Your task to perform on an android device: change text size in settings app Image 0: 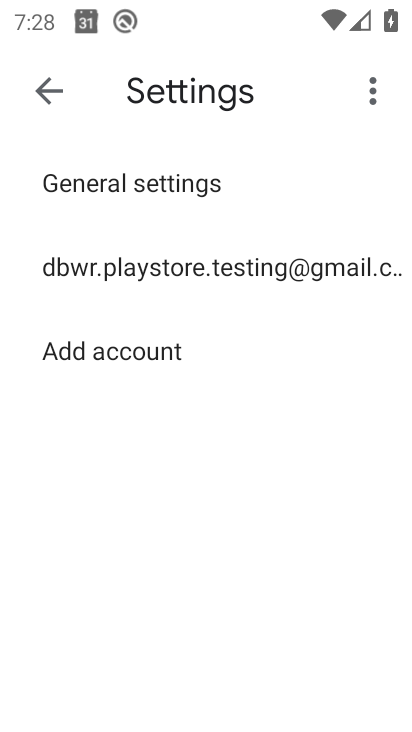
Step 0: press home button
Your task to perform on an android device: change text size in settings app Image 1: 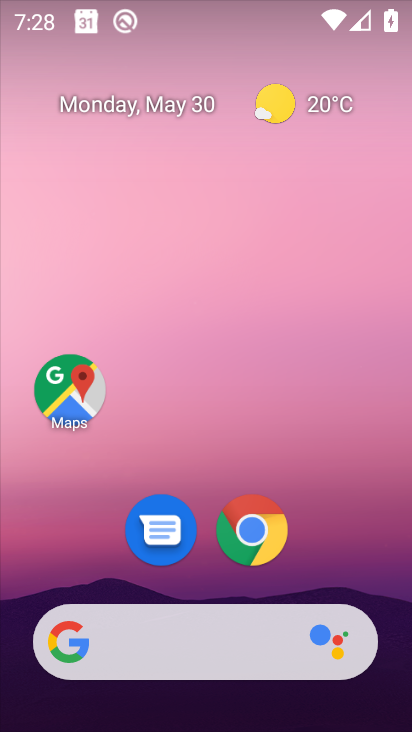
Step 1: drag from (2, 506) to (220, 196)
Your task to perform on an android device: change text size in settings app Image 2: 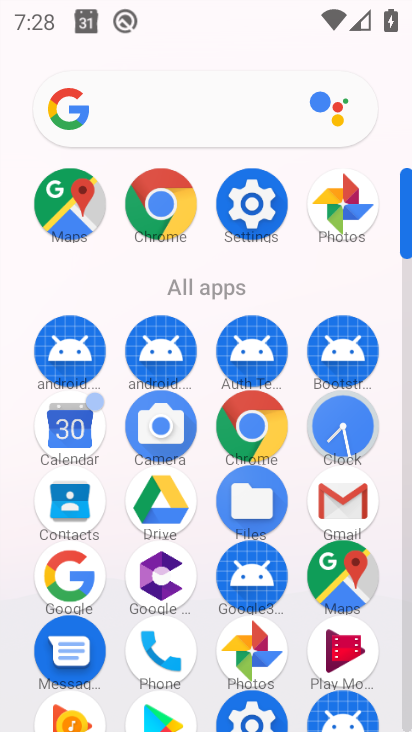
Step 2: click (258, 220)
Your task to perform on an android device: change text size in settings app Image 3: 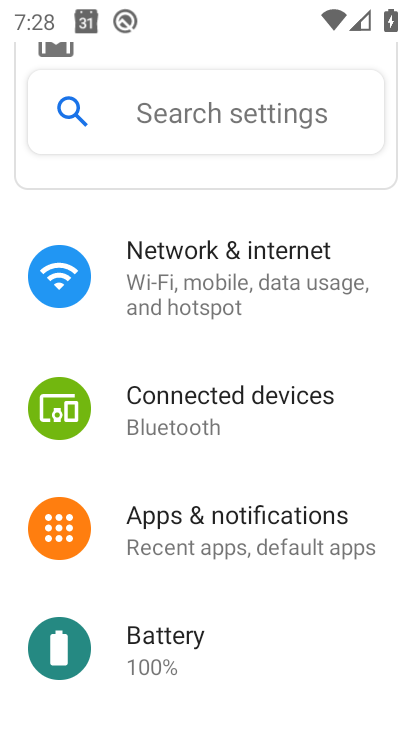
Step 3: drag from (9, 561) to (231, 219)
Your task to perform on an android device: change text size in settings app Image 4: 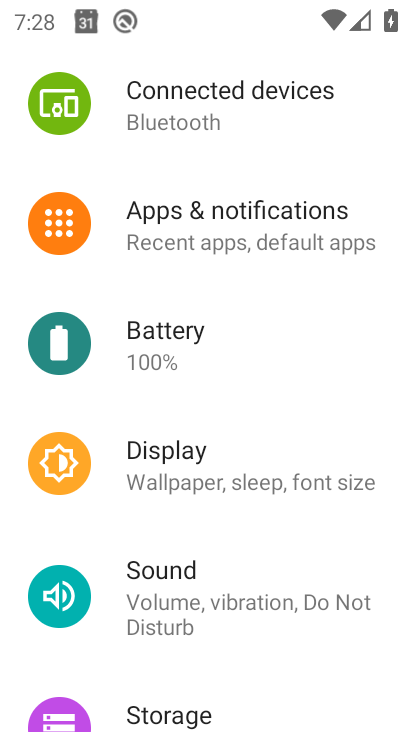
Step 4: click (291, 475)
Your task to perform on an android device: change text size in settings app Image 5: 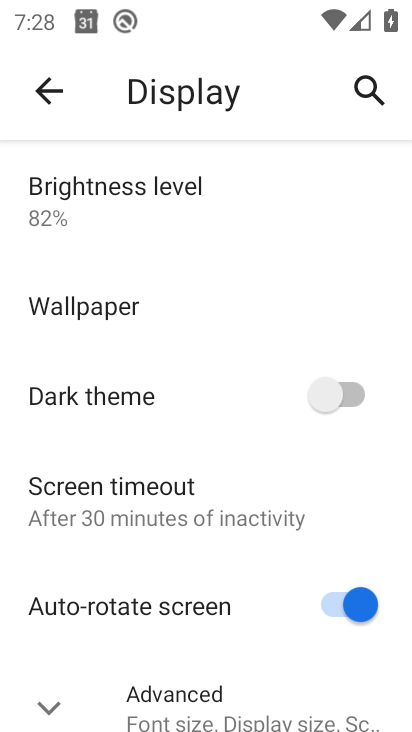
Step 5: drag from (134, 435) to (308, 230)
Your task to perform on an android device: change text size in settings app Image 6: 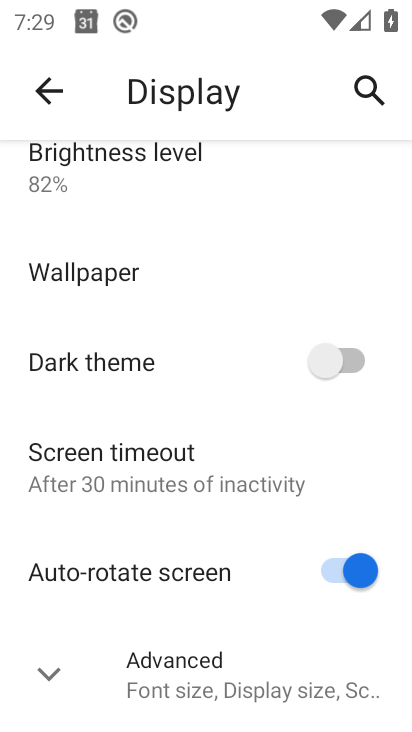
Step 6: click (263, 682)
Your task to perform on an android device: change text size in settings app Image 7: 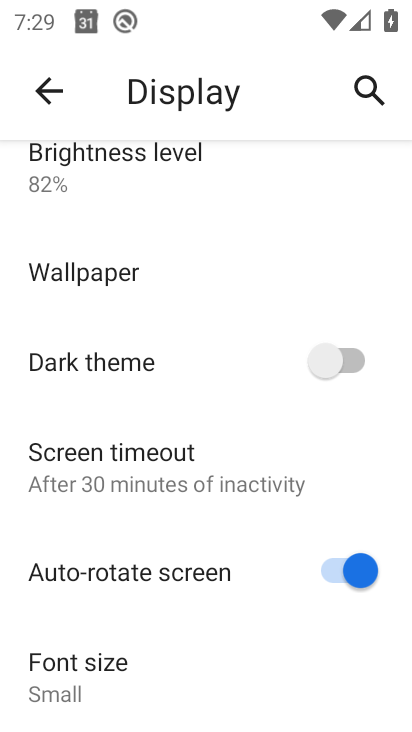
Step 7: drag from (26, 582) to (131, 374)
Your task to perform on an android device: change text size in settings app Image 8: 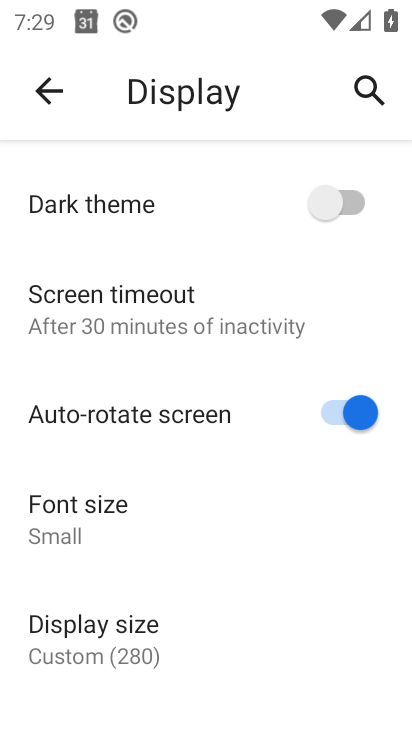
Step 8: click (43, 511)
Your task to perform on an android device: change text size in settings app Image 9: 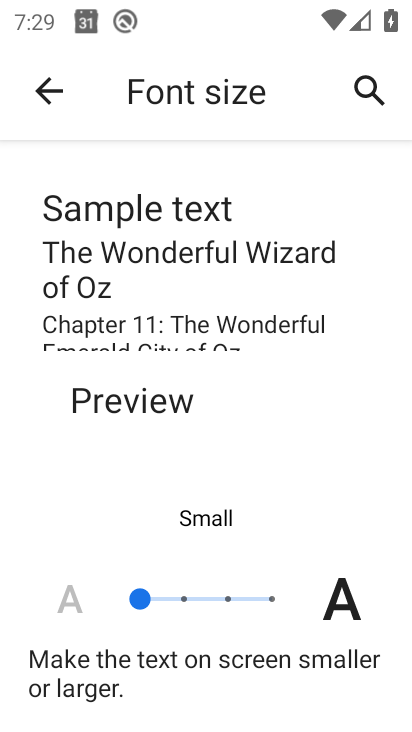
Step 9: click (186, 604)
Your task to perform on an android device: change text size in settings app Image 10: 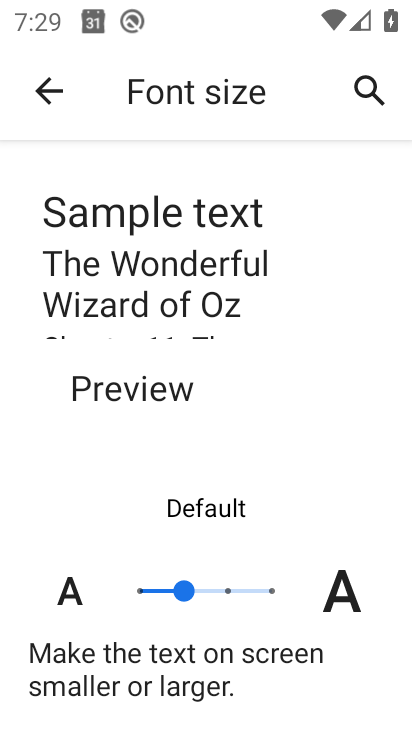
Step 10: task complete